Your task to perform on an android device: Open Google Maps Image 0: 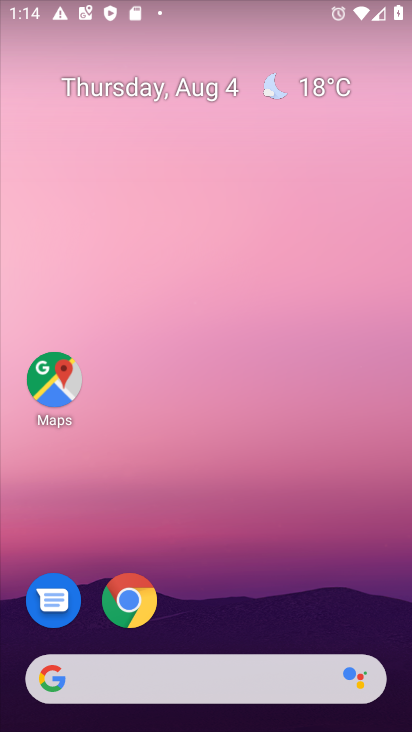
Step 0: click (52, 385)
Your task to perform on an android device: Open Google Maps Image 1: 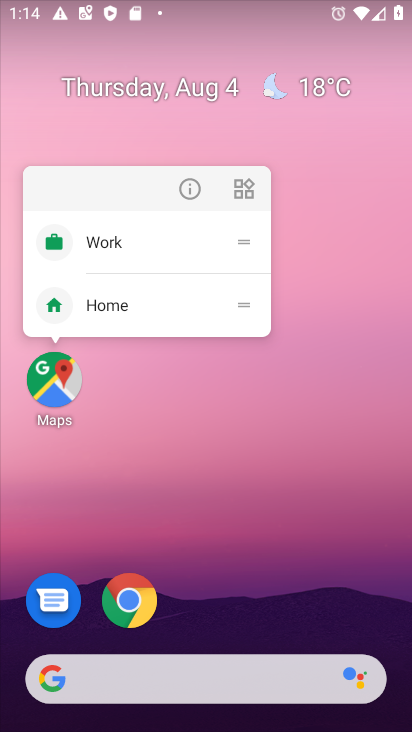
Step 1: click (54, 385)
Your task to perform on an android device: Open Google Maps Image 2: 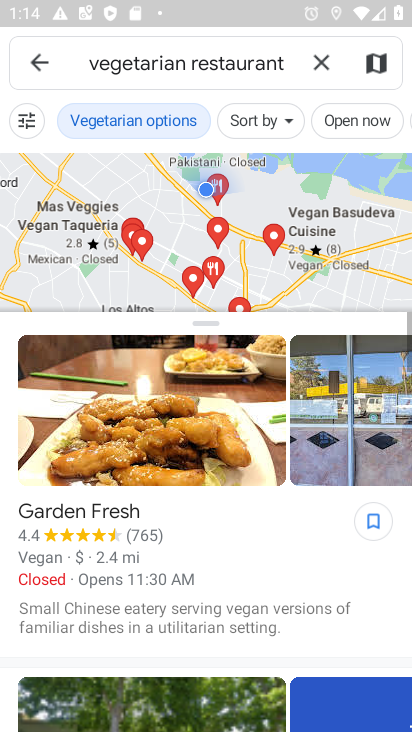
Step 2: click (35, 56)
Your task to perform on an android device: Open Google Maps Image 3: 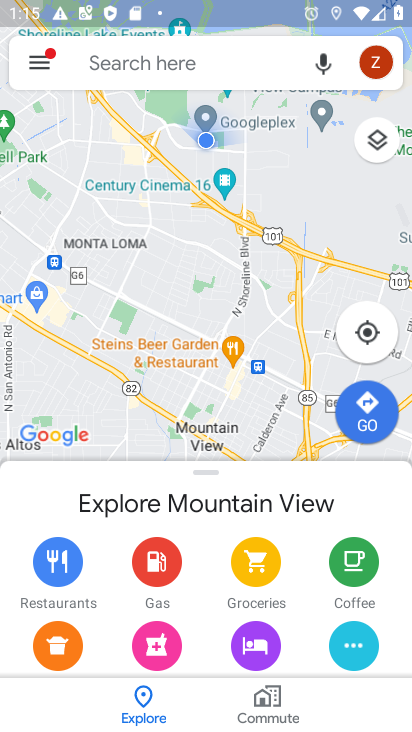
Step 3: task complete